Your task to perform on an android device: turn pop-ups on in chrome Image 0: 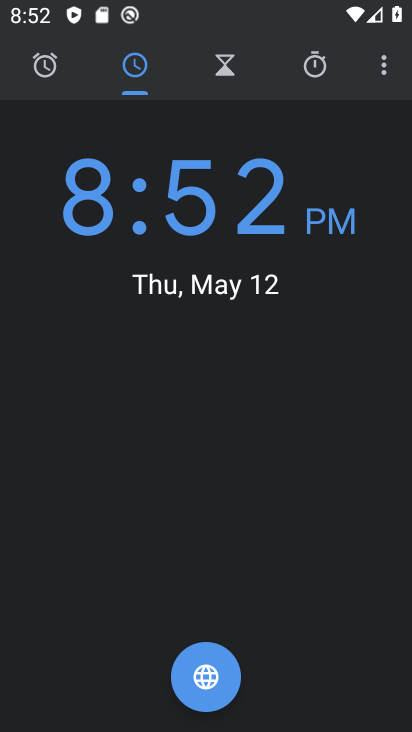
Step 0: press home button
Your task to perform on an android device: turn pop-ups on in chrome Image 1: 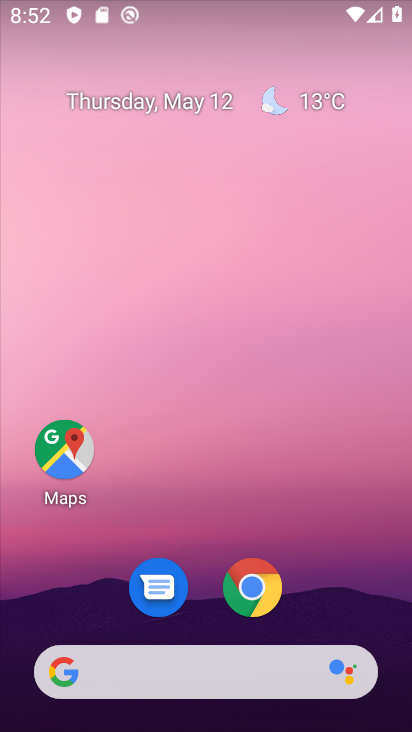
Step 1: drag from (350, 559) to (330, 16)
Your task to perform on an android device: turn pop-ups on in chrome Image 2: 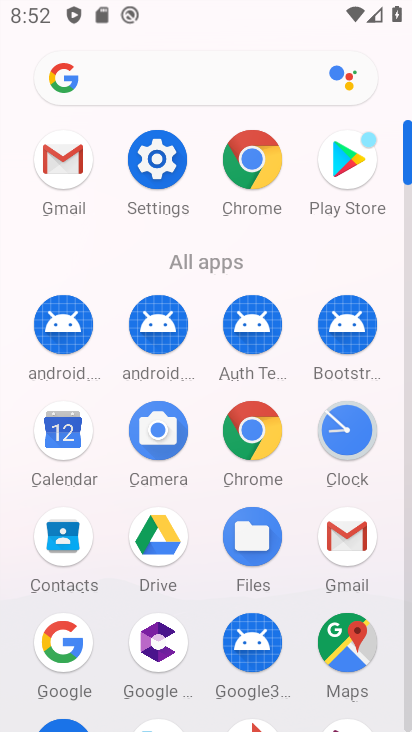
Step 2: click (254, 211)
Your task to perform on an android device: turn pop-ups on in chrome Image 3: 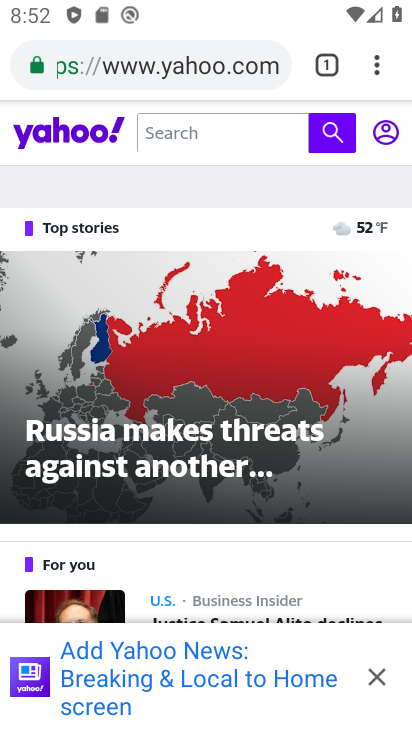
Step 3: drag from (371, 71) to (177, 632)
Your task to perform on an android device: turn pop-ups on in chrome Image 4: 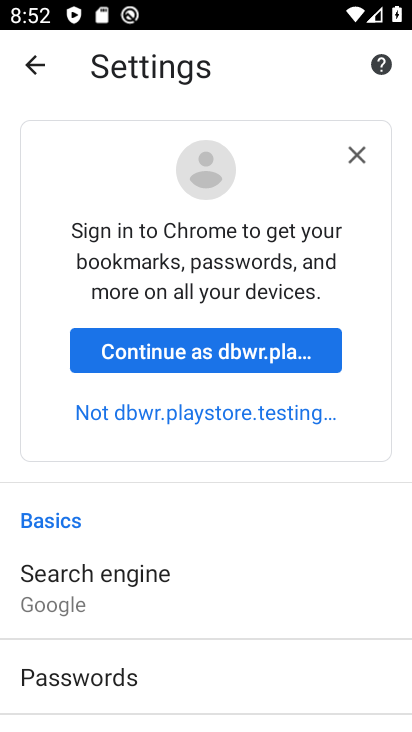
Step 4: drag from (119, 661) to (173, 137)
Your task to perform on an android device: turn pop-ups on in chrome Image 5: 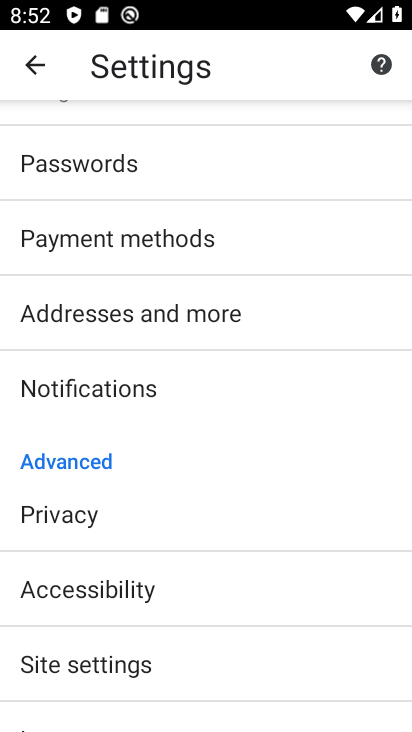
Step 5: drag from (107, 663) to (154, 378)
Your task to perform on an android device: turn pop-ups on in chrome Image 6: 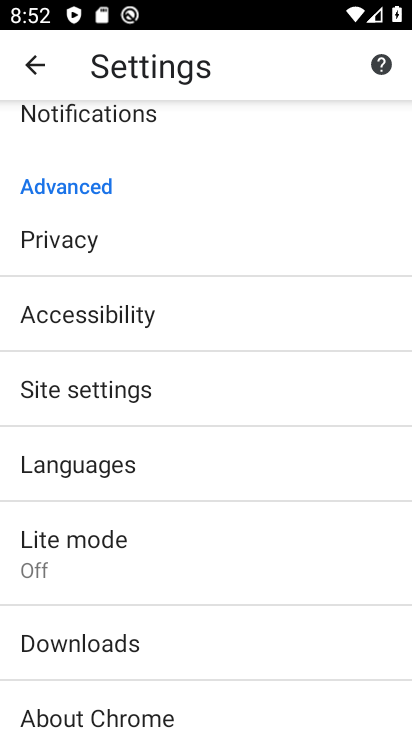
Step 6: click (94, 397)
Your task to perform on an android device: turn pop-ups on in chrome Image 7: 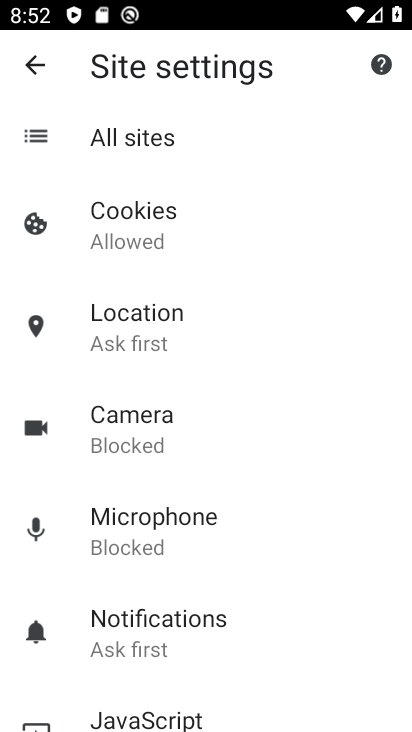
Step 7: drag from (236, 554) to (214, 247)
Your task to perform on an android device: turn pop-ups on in chrome Image 8: 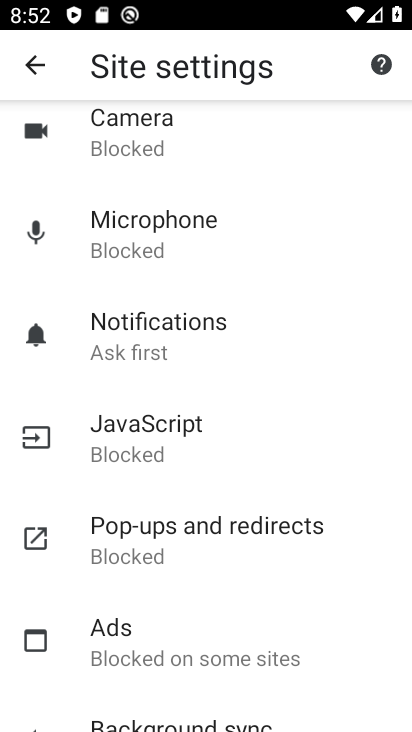
Step 8: click (136, 554)
Your task to perform on an android device: turn pop-ups on in chrome Image 9: 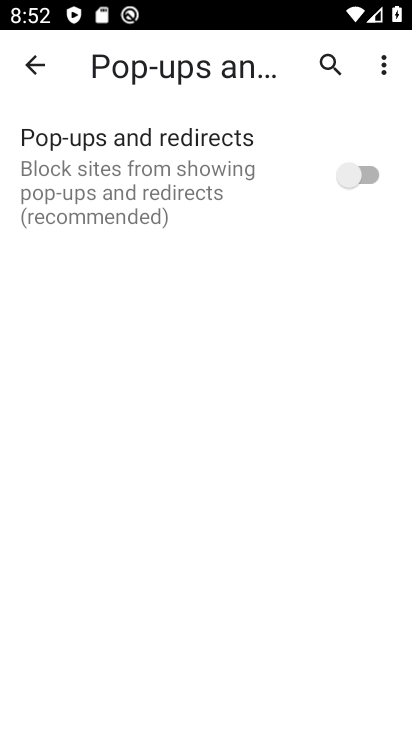
Step 9: click (357, 163)
Your task to perform on an android device: turn pop-ups on in chrome Image 10: 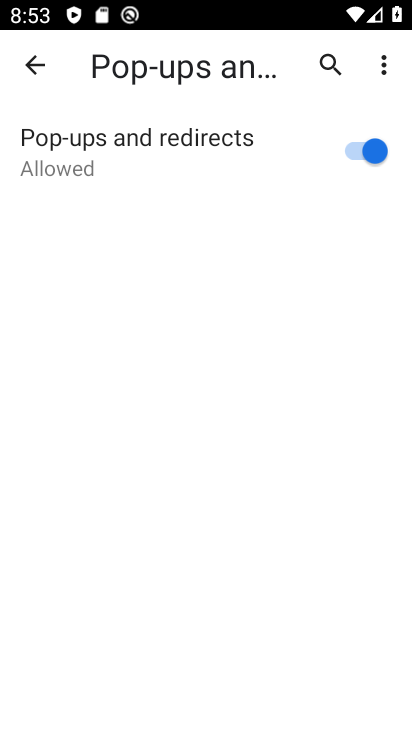
Step 10: task complete